Your task to perform on an android device: toggle improve location accuracy Image 0: 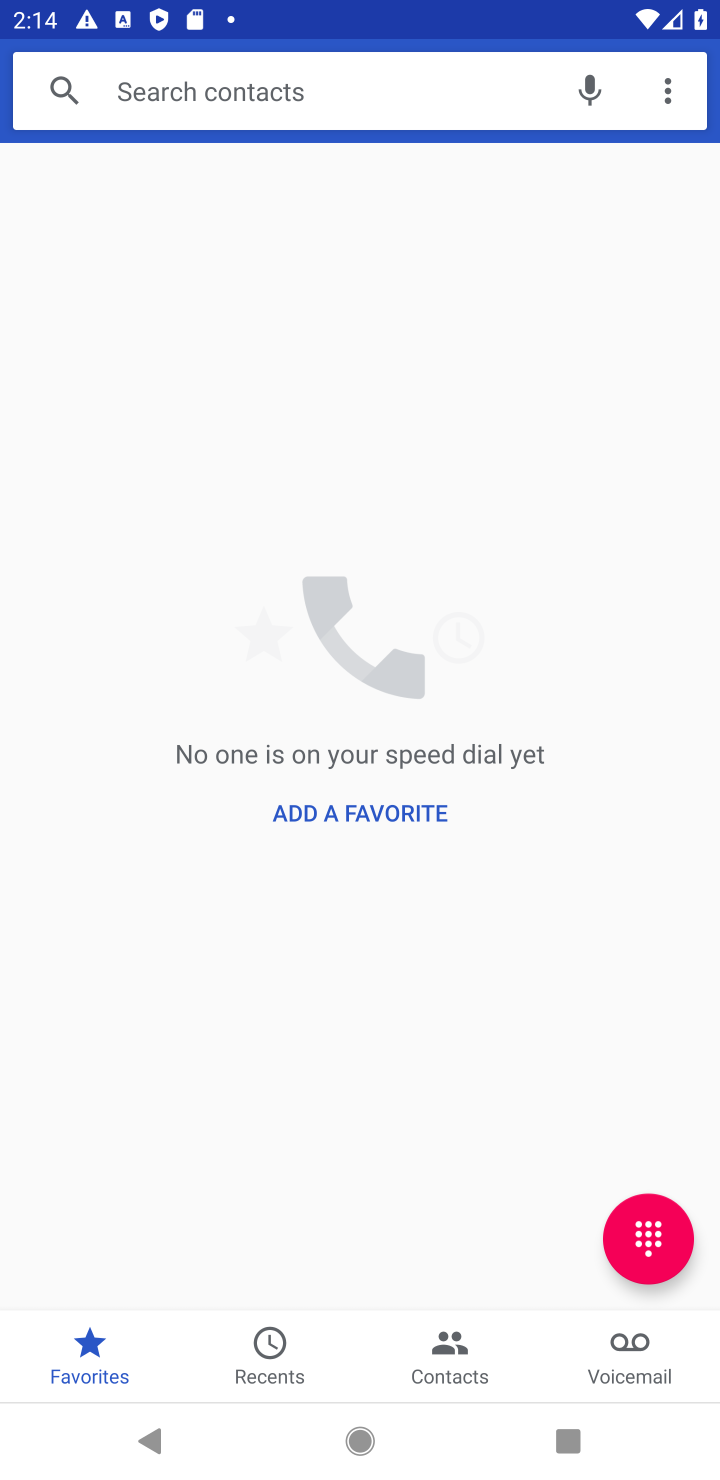
Step 0: press home button
Your task to perform on an android device: toggle improve location accuracy Image 1: 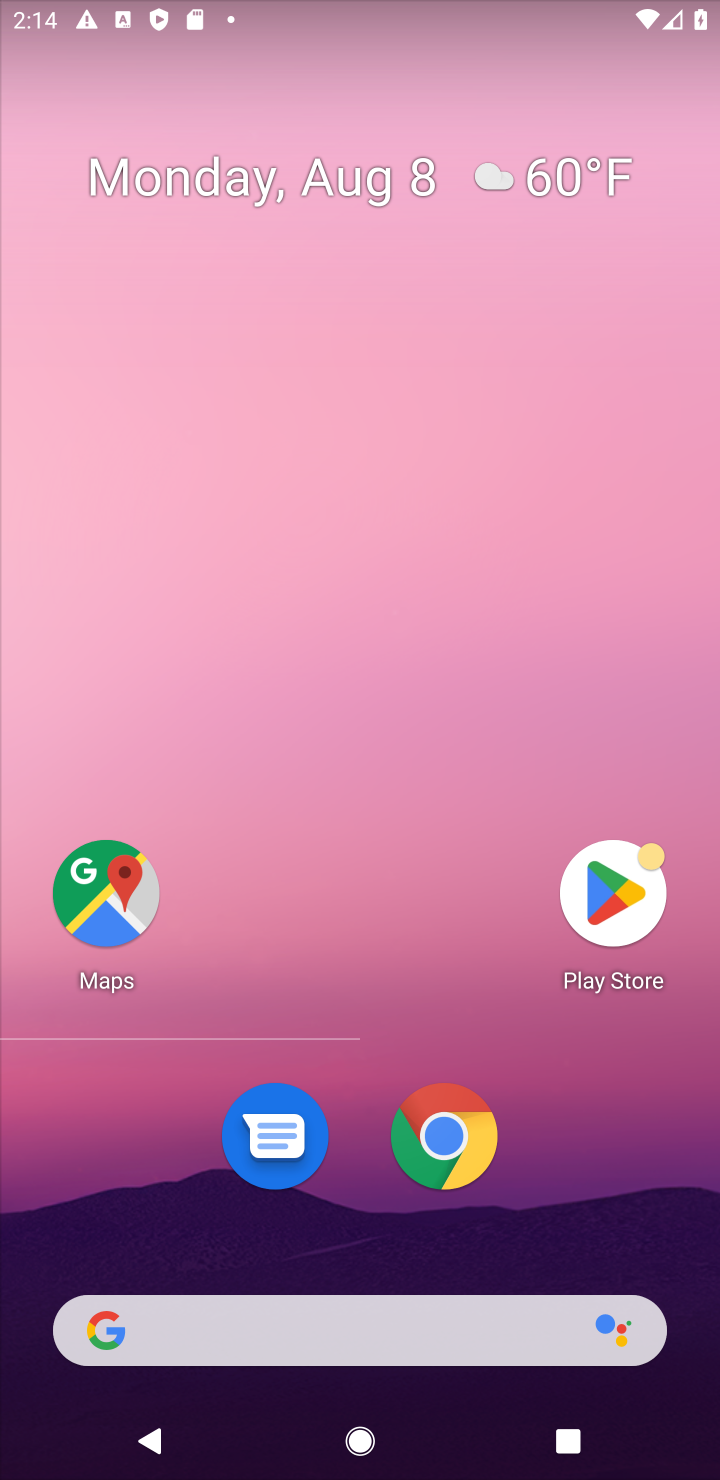
Step 1: task complete